Your task to perform on an android device: turn on notifications settings in the gmail app Image 0: 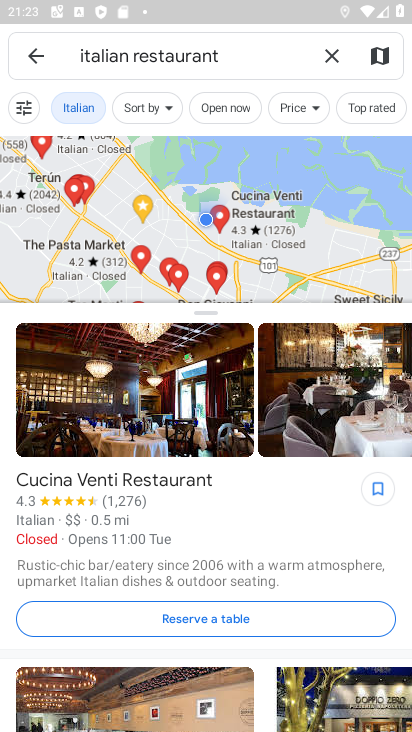
Step 0: press home button
Your task to perform on an android device: turn on notifications settings in the gmail app Image 1: 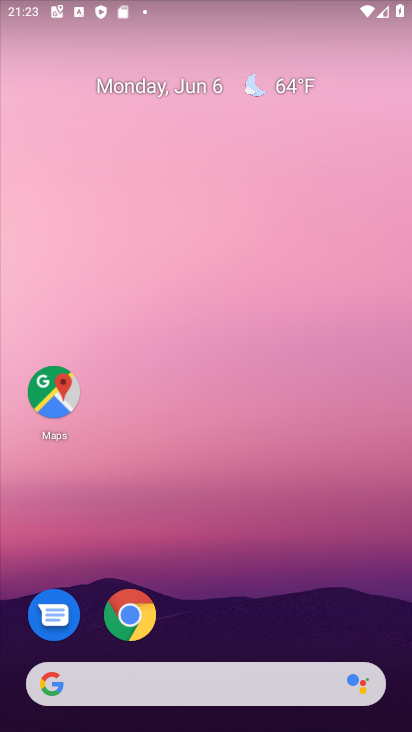
Step 1: drag from (394, 668) to (344, 99)
Your task to perform on an android device: turn on notifications settings in the gmail app Image 2: 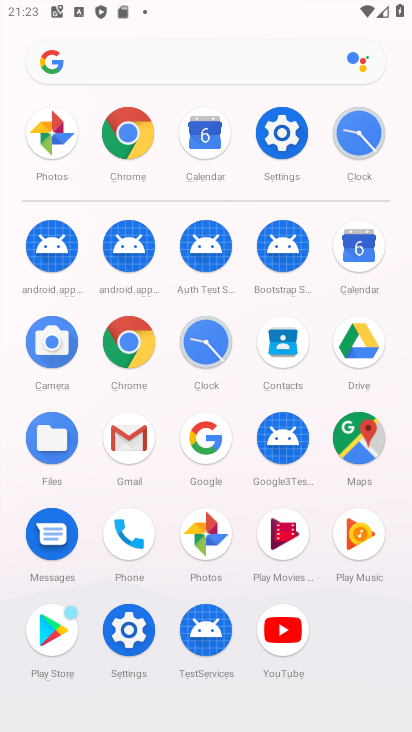
Step 2: click (133, 433)
Your task to perform on an android device: turn on notifications settings in the gmail app Image 3: 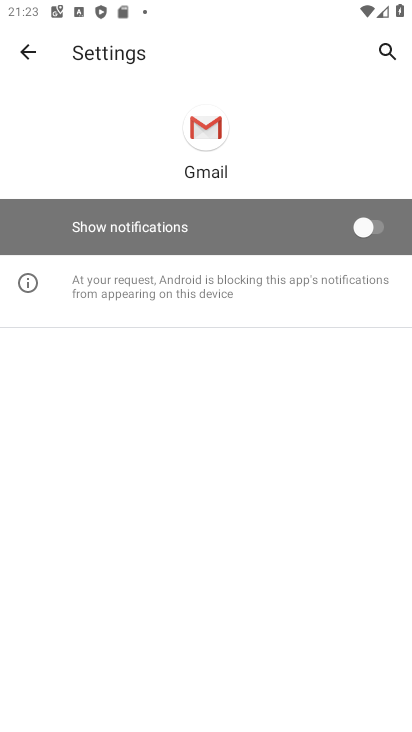
Step 3: click (27, 52)
Your task to perform on an android device: turn on notifications settings in the gmail app Image 4: 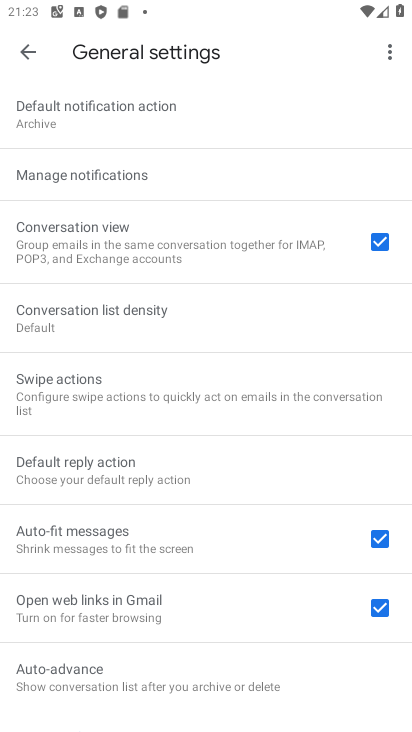
Step 4: click (67, 170)
Your task to perform on an android device: turn on notifications settings in the gmail app Image 5: 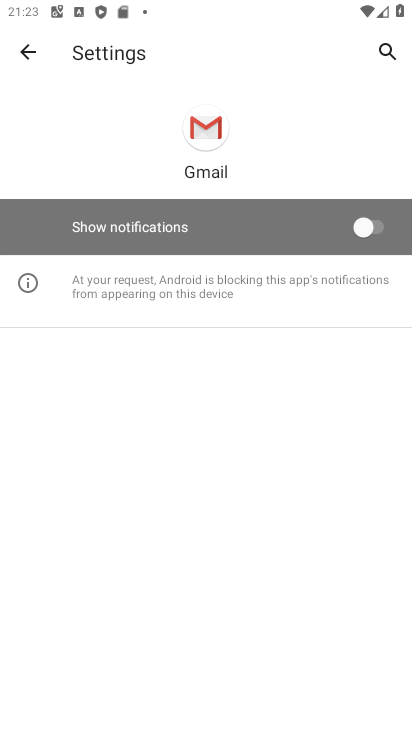
Step 5: click (375, 231)
Your task to perform on an android device: turn on notifications settings in the gmail app Image 6: 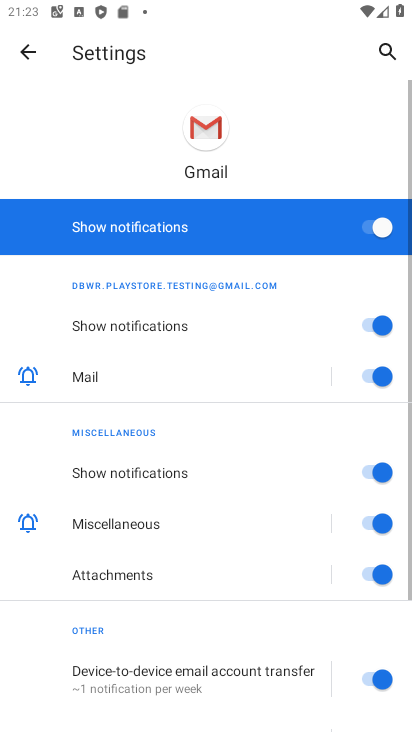
Step 6: task complete